Your task to perform on an android device: Play the last video I watched on Youtube Image 0: 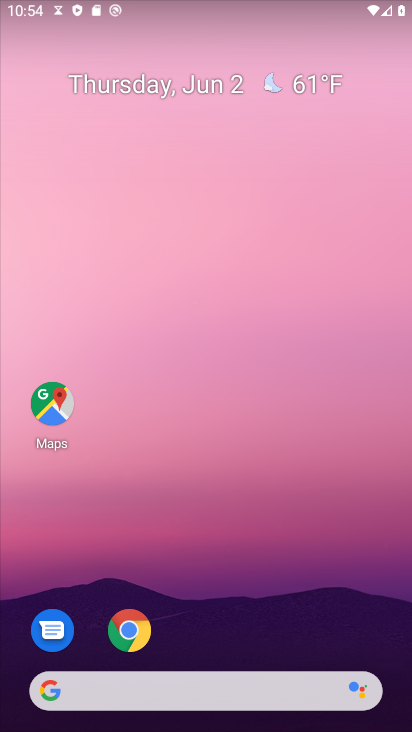
Step 0: drag from (208, 643) to (261, 35)
Your task to perform on an android device: Play the last video I watched on Youtube Image 1: 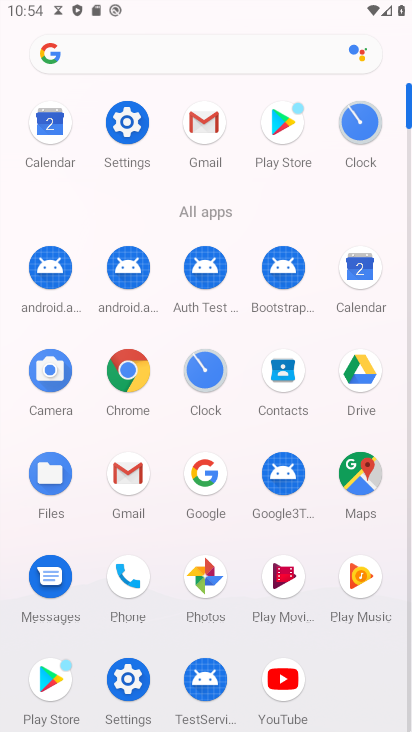
Step 1: click (281, 696)
Your task to perform on an android device: Play the last video I watched on Youtube Image 2: 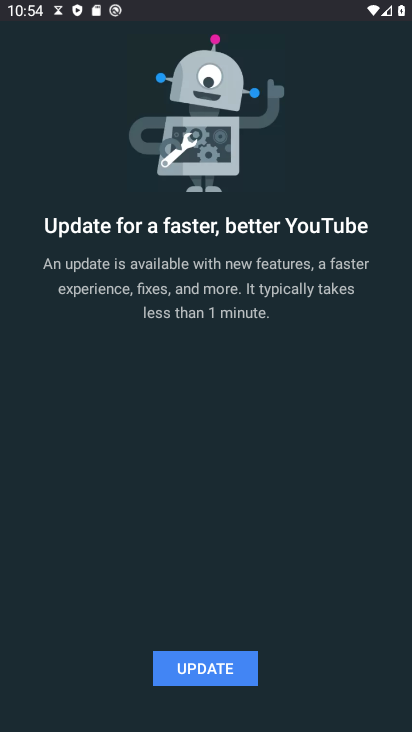
Step 2: click (237, 665)
Your task to perform on an android device: Play the last video I watched on Youtube Image 3: 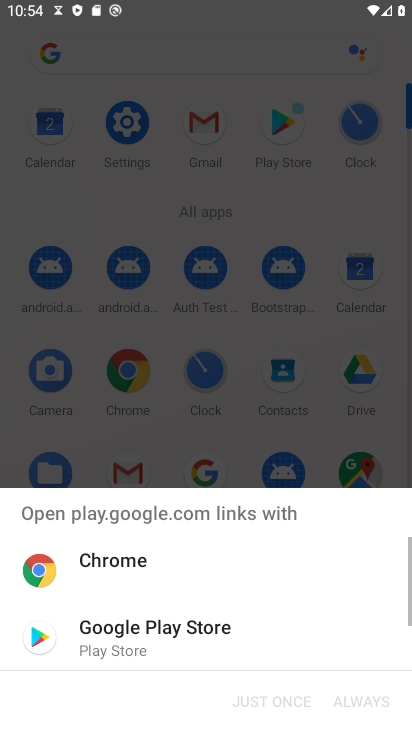
Step 3: click (124, 634)
Your task to perform on an android device: Play the last video I watched on Youtube Image 4: 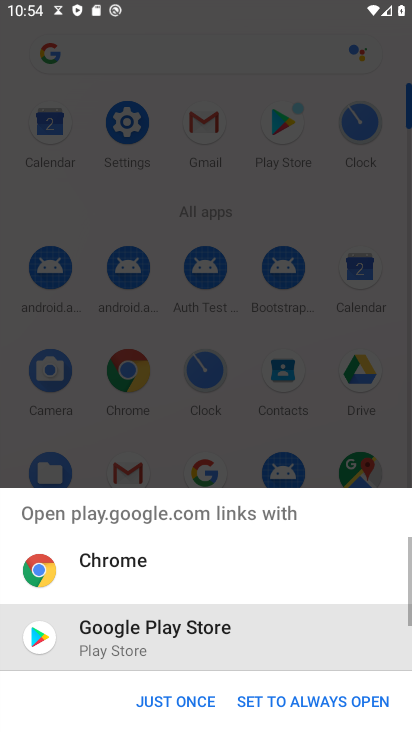
Step 4: click (167, 702)
Your task to perform on an android device: Play the last video I watched on Youtube Image 5: 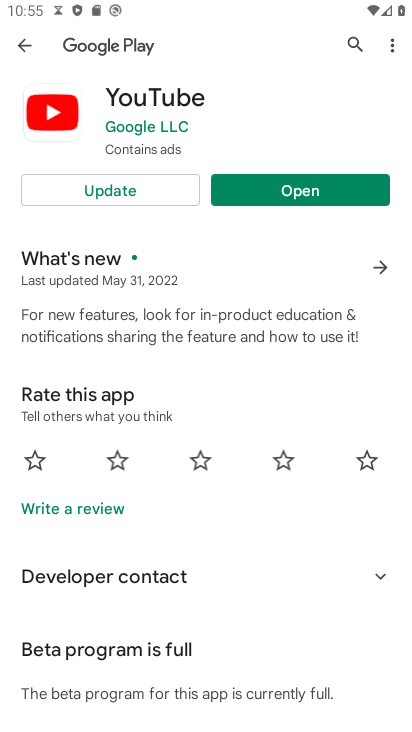
Step 5: click (98, 187)
Your task to perform on an android device: Play the last video I watched on Youtube Image 6: 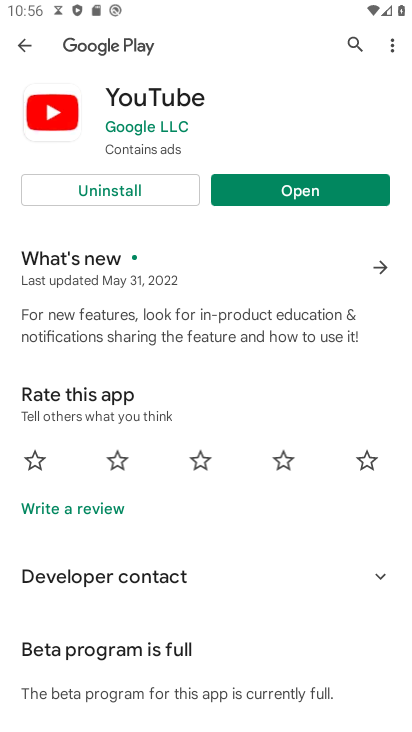
Step 6: click (259, 190)
Your task to perform on an android device: Play the last video I watched on Youtube Image 7: 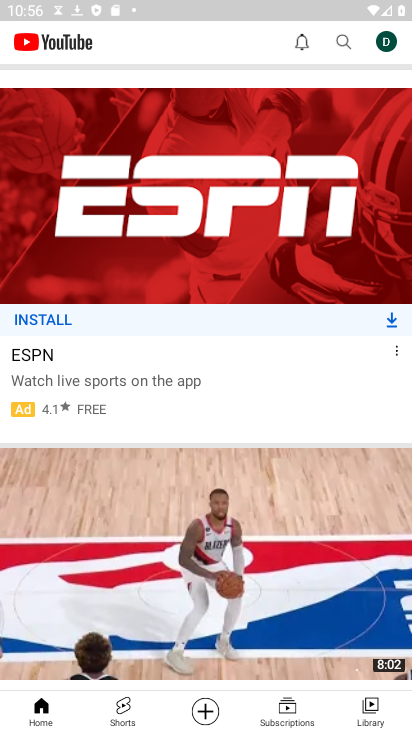
Step 7: click (375, 707)
Your task to perform on an android device: Play the last video I watched on Youtube Image 8: 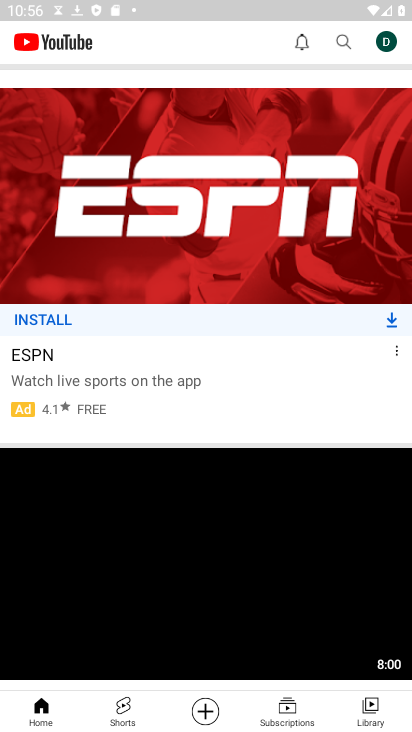
Step 8: click (374, 710)
Your task to perform on an android device: Play the last video I watched on Youtube Image 9: 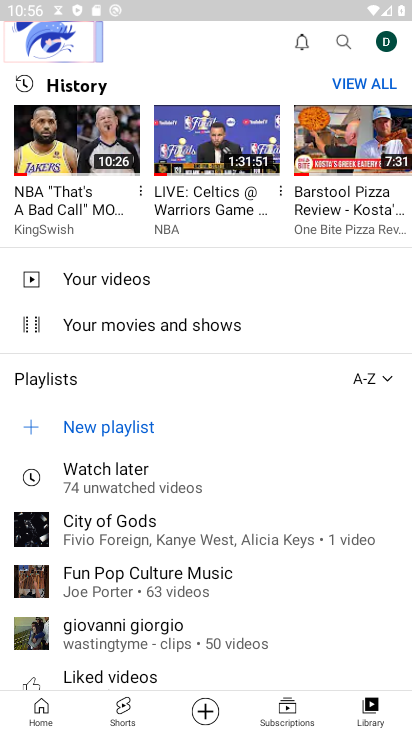
Step 9: click (67, 149)
Your task to perform on an android device: Play the last video I watched on Youtube Image 10: 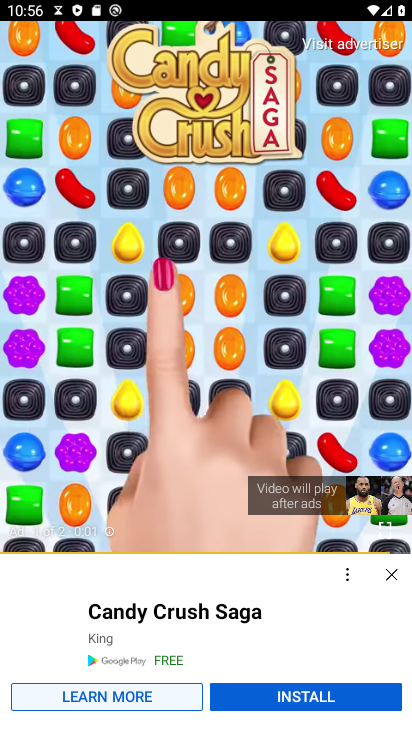
Step 10: task complete